Your task to perform on an android device: turn notification dots on Image 0: 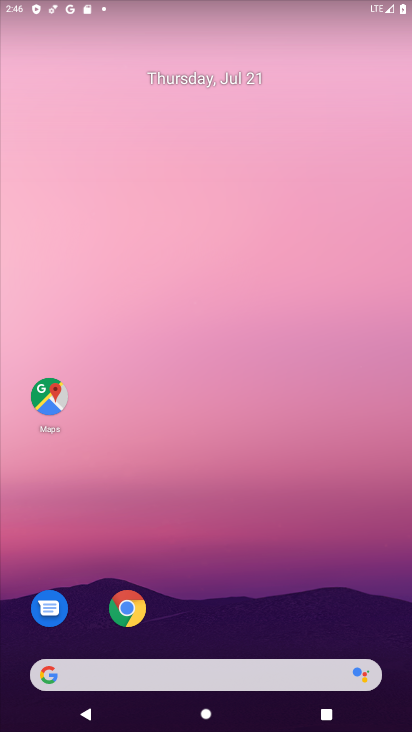
Step 0: drag from (235, 645) to (247, 17)
Your task to perform on an android device: turn notification dots on Image 1: 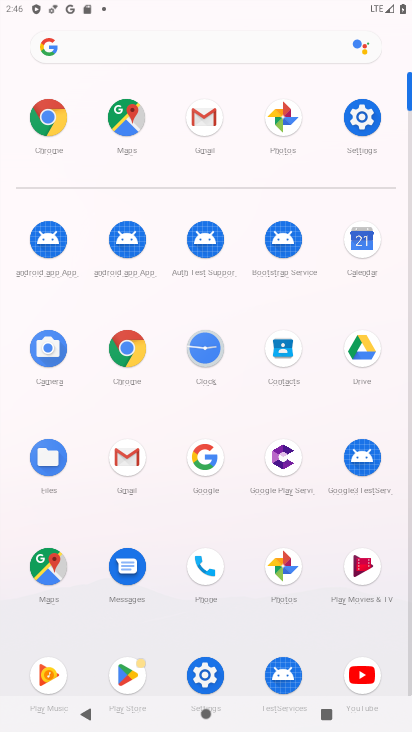
Step 1: click (348, 118)
Your task to perform on an android device: turn notification dots on Image 2: 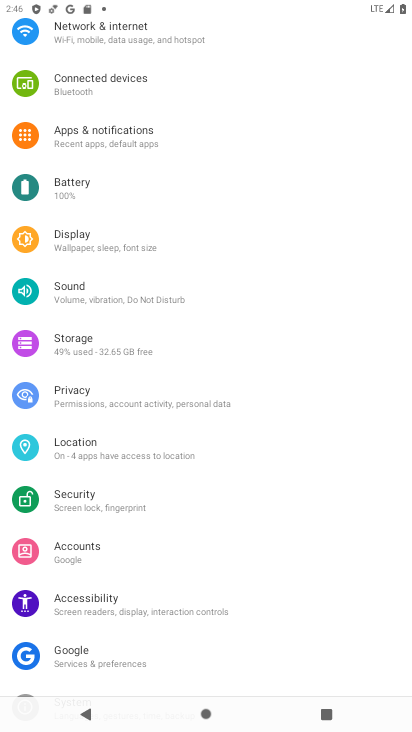
Step 2: click (93, 132)
Your task to perform on an android device: turn notification dots on Image 3: 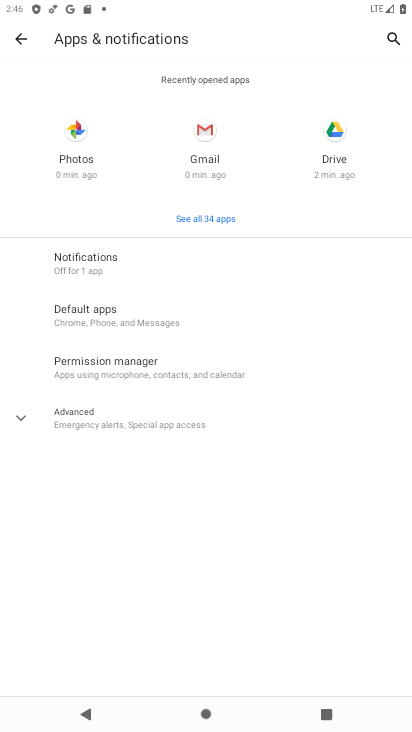
Step 3: click (91, 393)
Your task to perform on an android device: turn notification dots on Image 4: 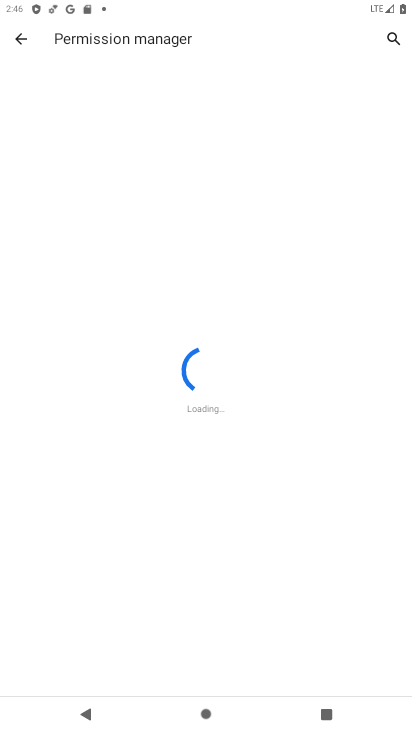
Step 4: click (12, 35)
Your task to perform on an android device: turn notification dots on Image 5: 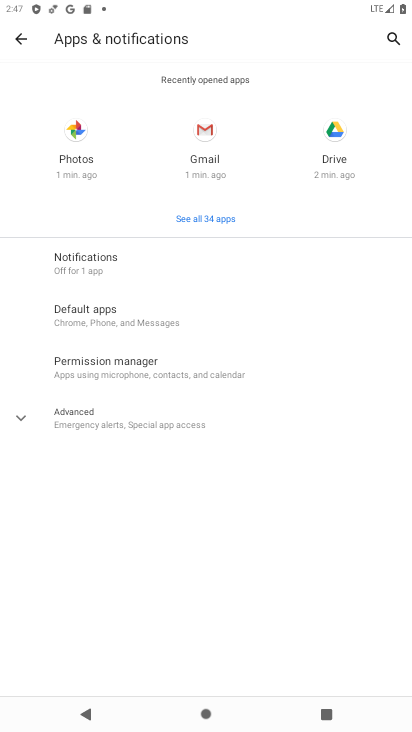
Step 5: click (119, 431)
Your task to perform on an android device: turn notification dots on Image 6: 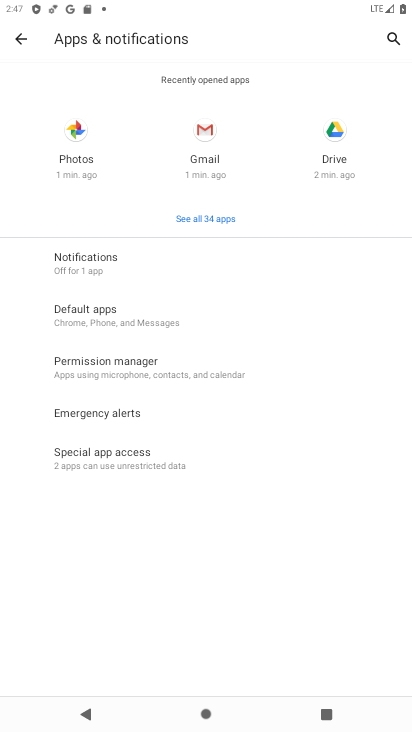
Step 6: click (80, 228)
Your task to perform on an android device: turn notification dots on Image 7: 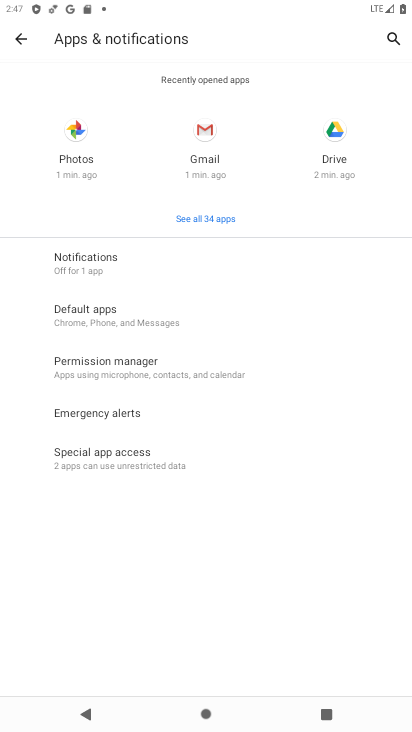
Step 7: click (87, 237)
Your task to perform on an android device: turn notification dots on Image 8: 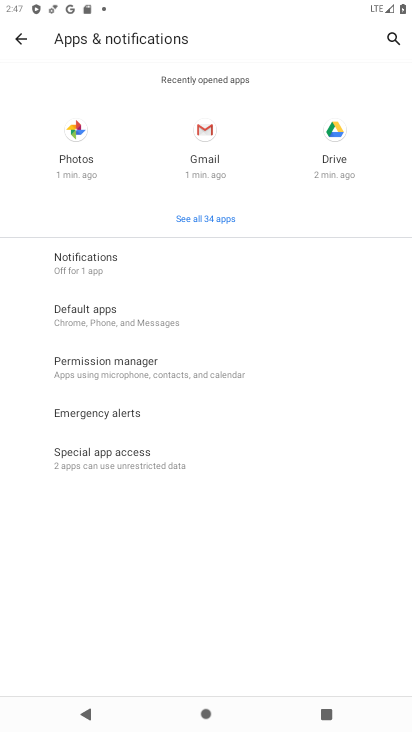
Step 8: click (46, 261)
Your task to perform on an android device: turn notification dots on Image 9: 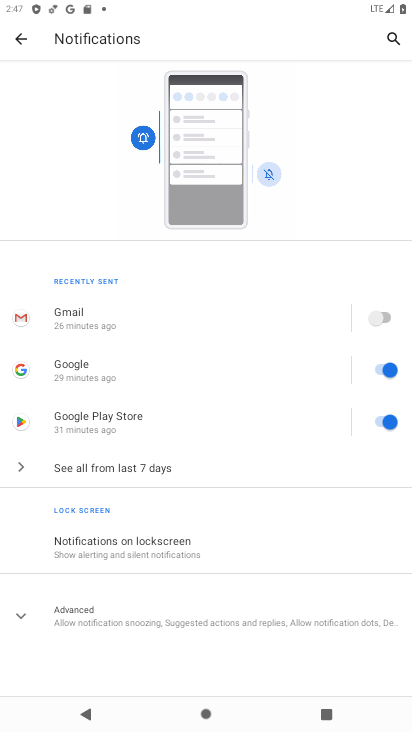
Step 9: click (152, 607)
Your task to perform on an android device: turn notification dots on Image 10: 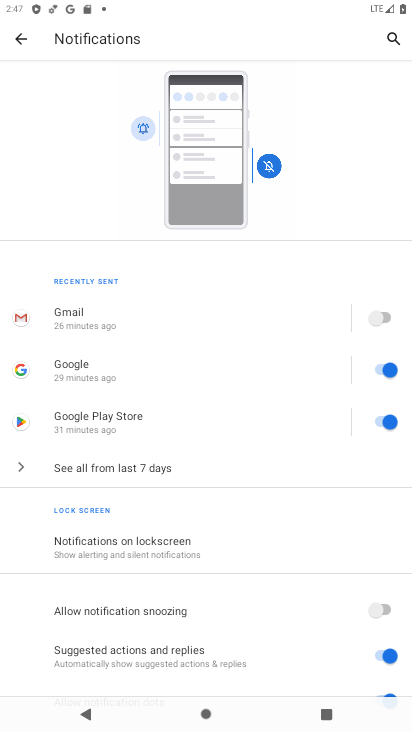
Step 10: task complete